Your task to perform on an android device: Open notification settings Image 0: 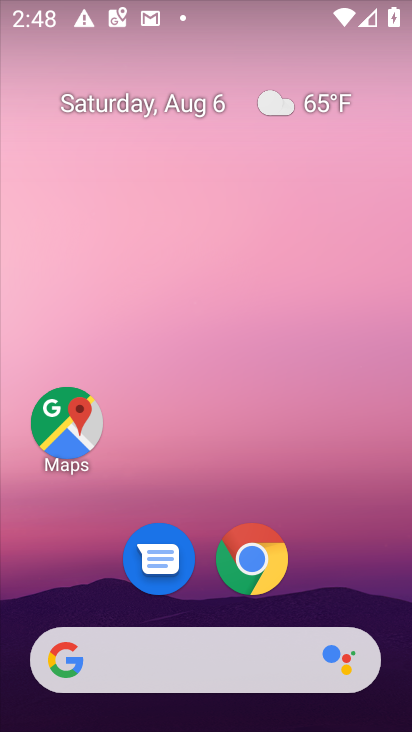
Step 0: drag from (210, 456) to (222, 24)
Your task to perform on an android device: Open notification settings Image 1: 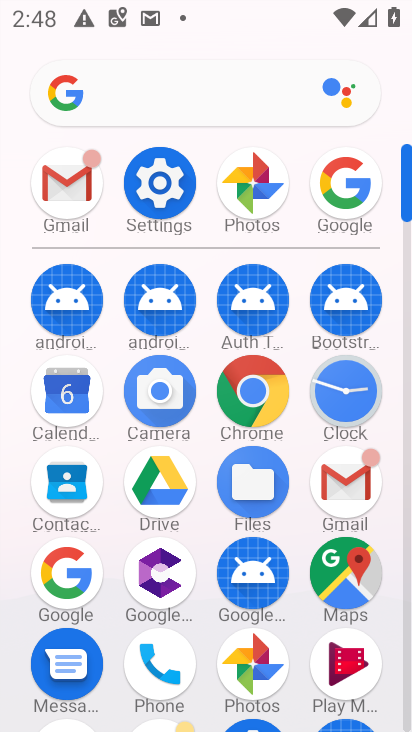
Step 1: click (158, 194)
Your task to perform on an android device: Open notification settings Image 2: 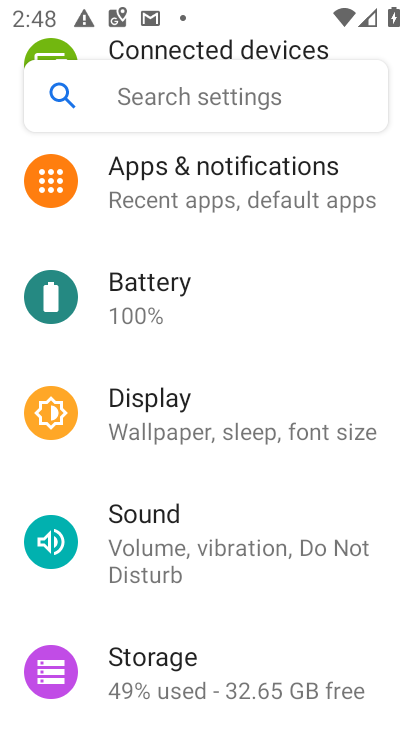
Step 2: click (262, 206)
Your task to perform on an android device: Open notification settings Image 3: 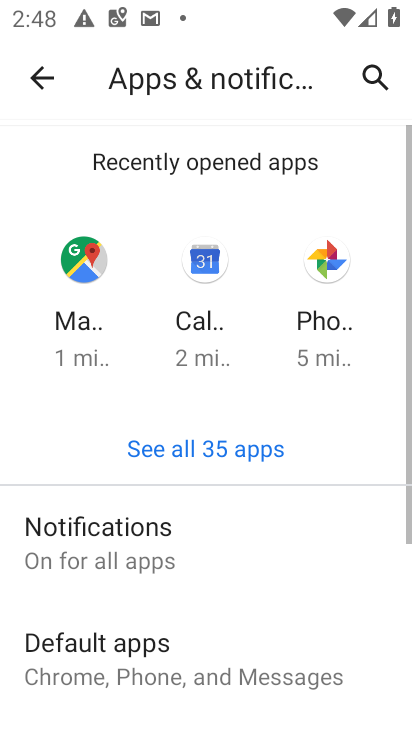
Step 3: click (200, 532)
Your task to perform on an android device: Open notification settings Image 4: 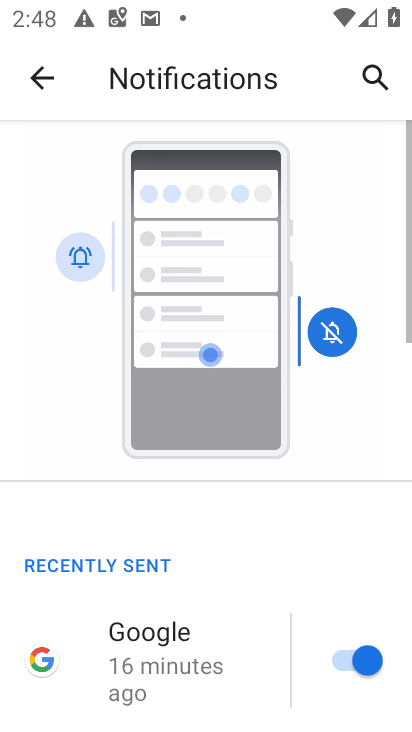
Step 4: task complete